Your task to perform on an android device: change the clock display to digital Image 0: 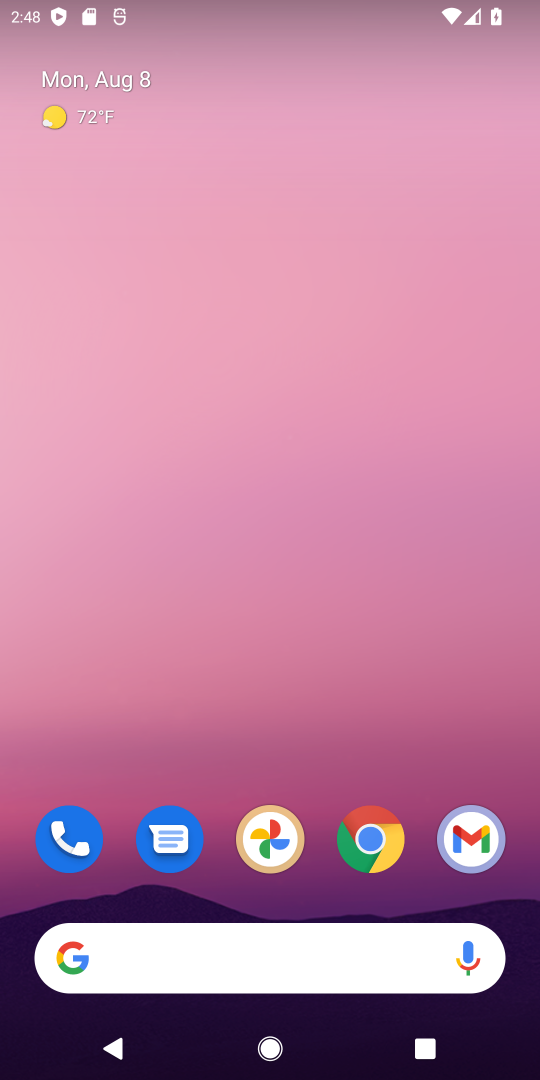
Step 0: press home button
Your task to perform on an android device: change the clock display to digital Image 1: 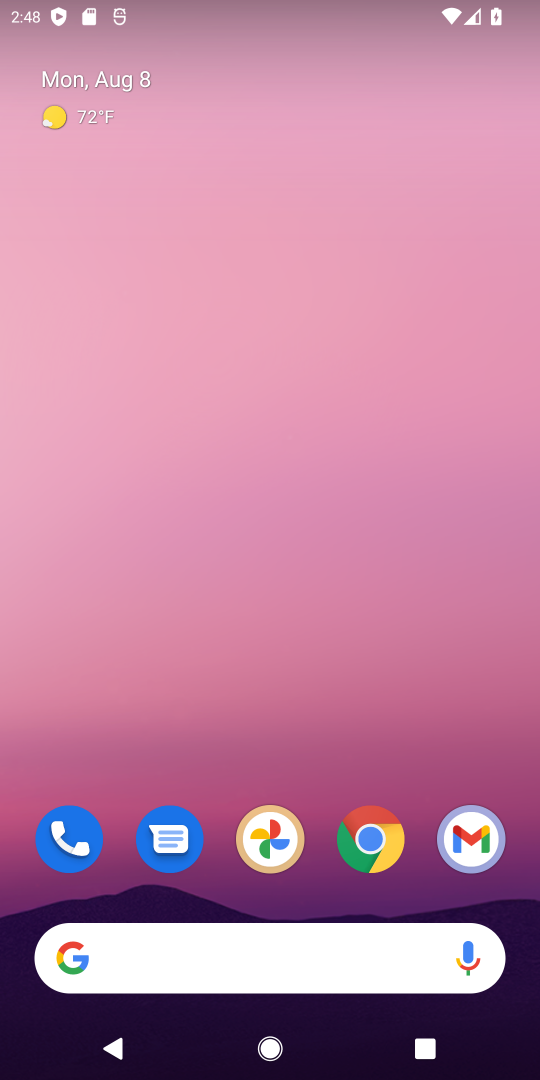
Step 1: drag from (431, 746) to (472, 245)
Your task to perform on an android device: change the clock display to digital Image 2: 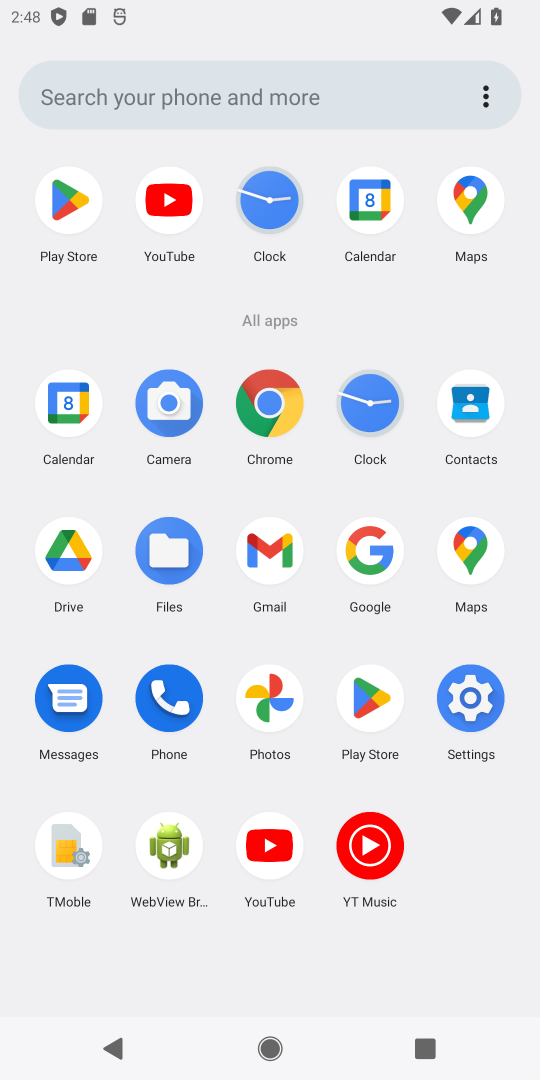
Step 2: click (369, 408)
Your task to perform on an android device: change the clock display to digital Image 3: 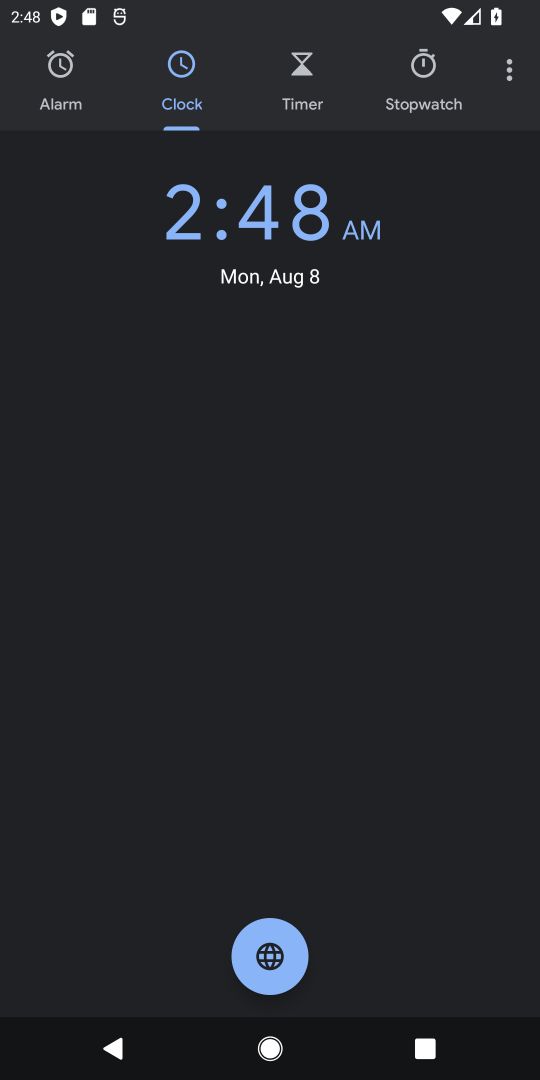
Step 3: click (510, 72)
Your task to perform on an android device: change the clock display to digital Image 4: 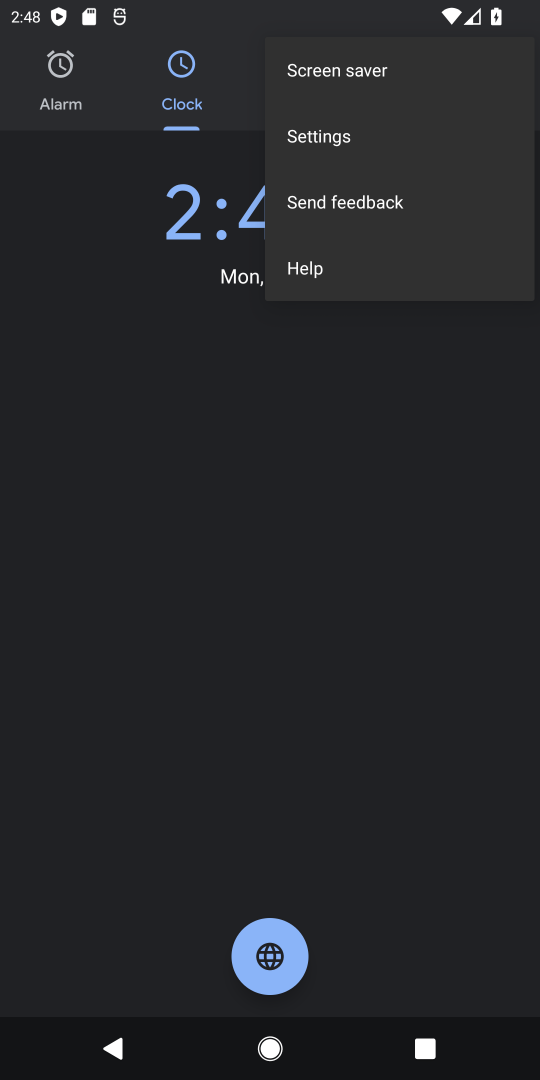
Step 4: click (362, 143)
Your task to perform on an android device: change the clock display to digital Image 5: 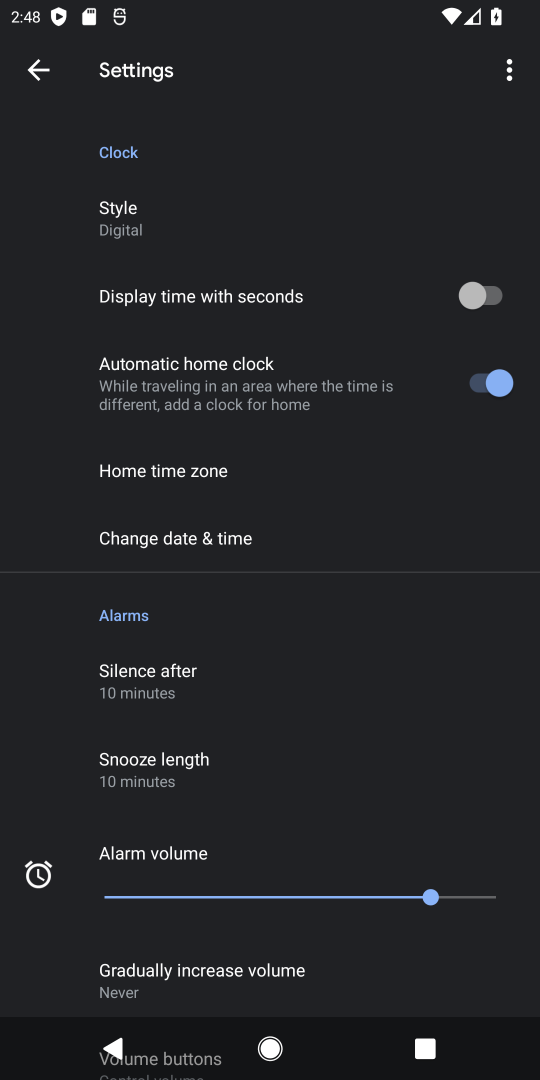
Step 5: task complete